Your task to perform on an android device: Show me recent news Image 0: 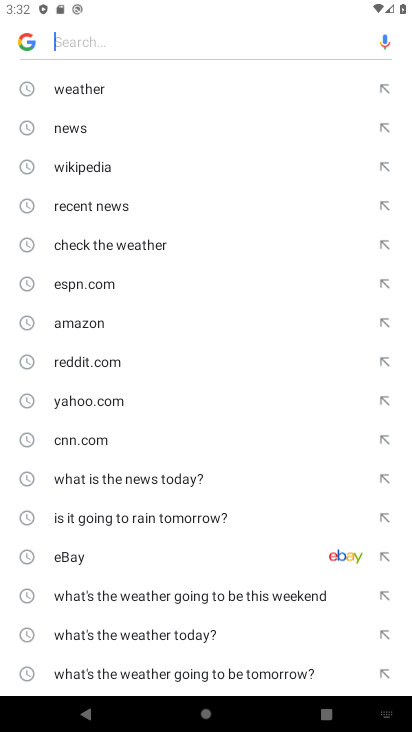
Step 0: click (102, 205)
Your task to perform on an android device: Show me recent news Image 1: 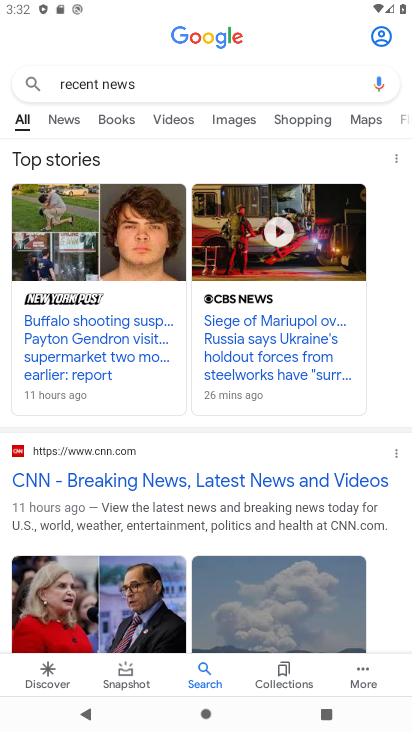
Step 1: task complete